Your task to perform on an android device: Do I have any events this weekend? Image 0: 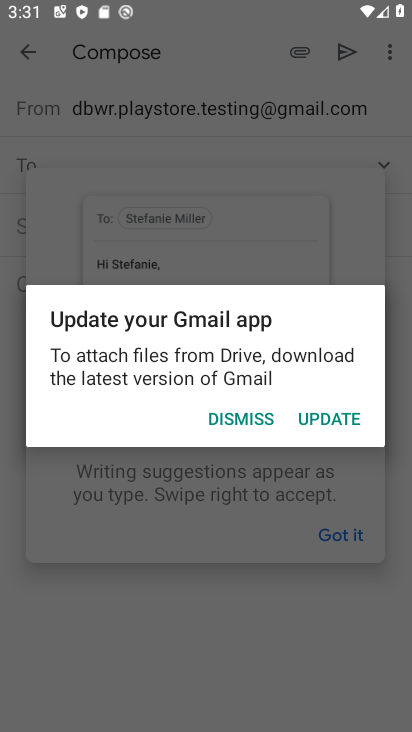
Step 0: press home button
Your task to perform on an android device: Do I have any events this weekend? Image 1: 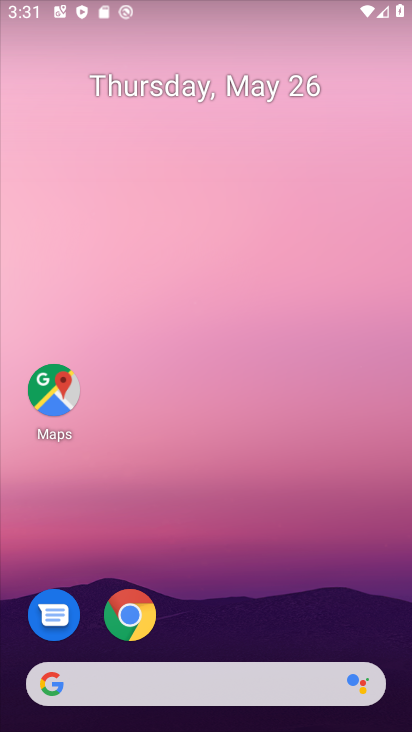
Step 1: drag from (292, 654) to (228, 158)
Your task to perform on an android device: Do I have any events this weekend? Image 2: 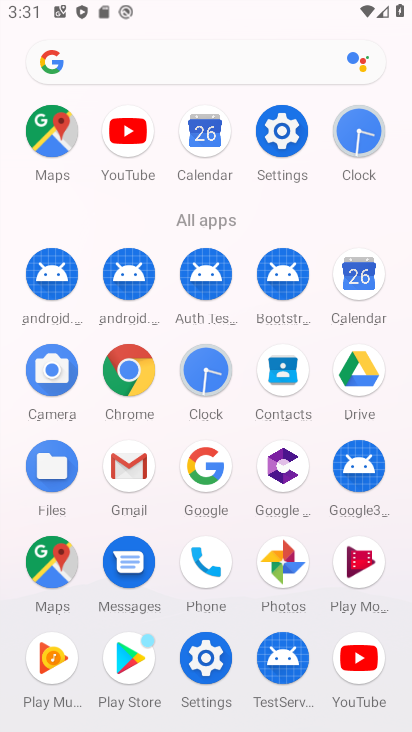
Step 2: click (371, 275)
Your task to perform on an android device: Do I have any events this weekend? Image 3: 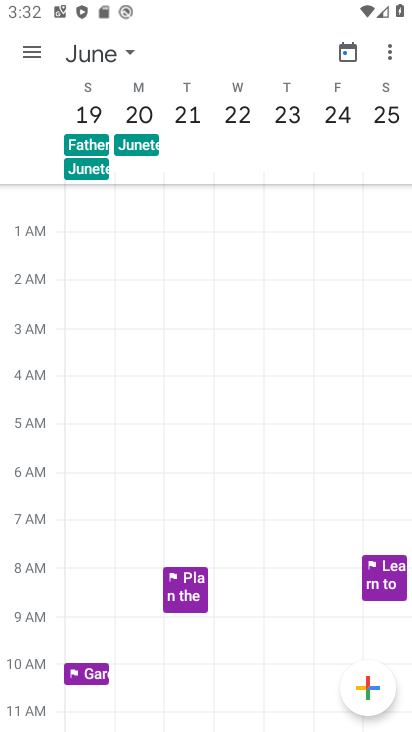
Step 3: click (28, 51)
Your task to perform on an android device: Do I have any events this weekend? Image 4: 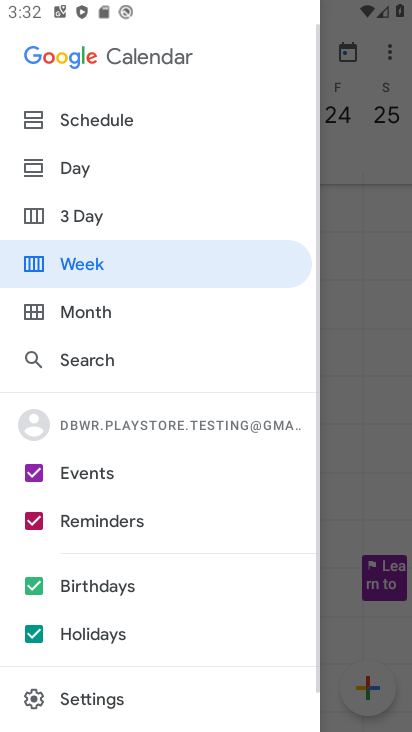
Step 4: click (120, 216)
Your task to perform on an android device: Do I have any events this weekend? Image 5: 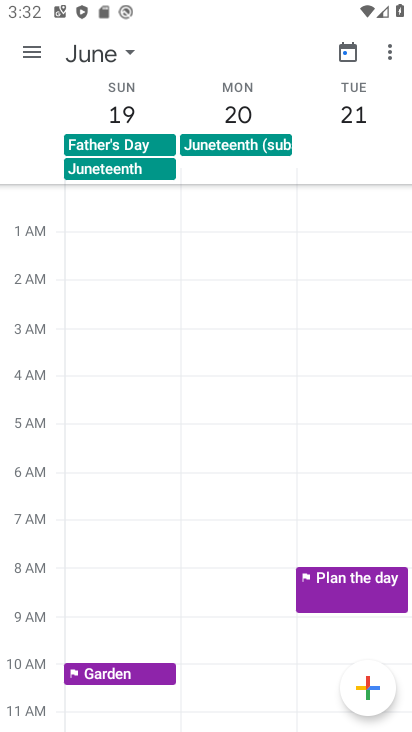
Step 5: click (130, 45)
Your task to perform on an android device: Do I have any events this weekend? Image 6: 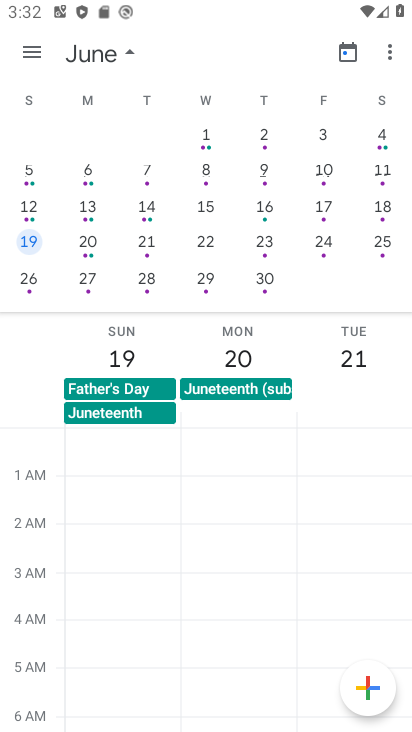
Step 6: drag from (81, 169) to (411, 250)
Your task to perform on an android device: Do I have any events this weekend? Image 7: 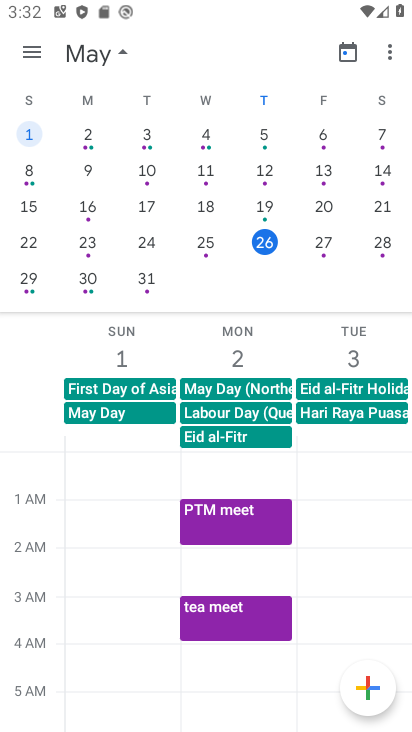
Step 7: click (323, 247)
Your task to perform on an android device: Do I have any events this weekend? Image 8: 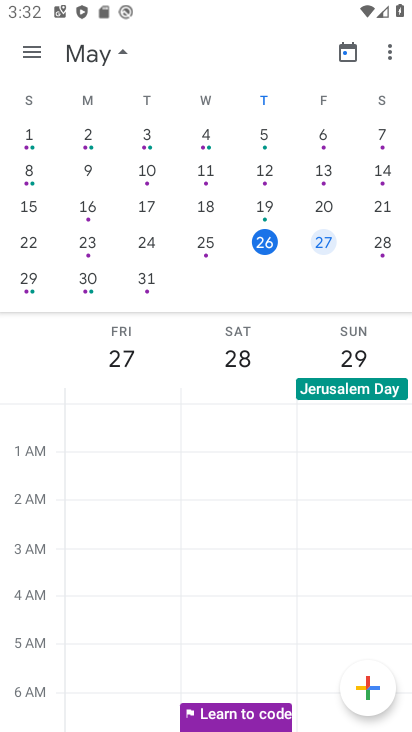
Step 8: task complete